Your task to perform on an android device: turn off improve location accuracy Image 0: 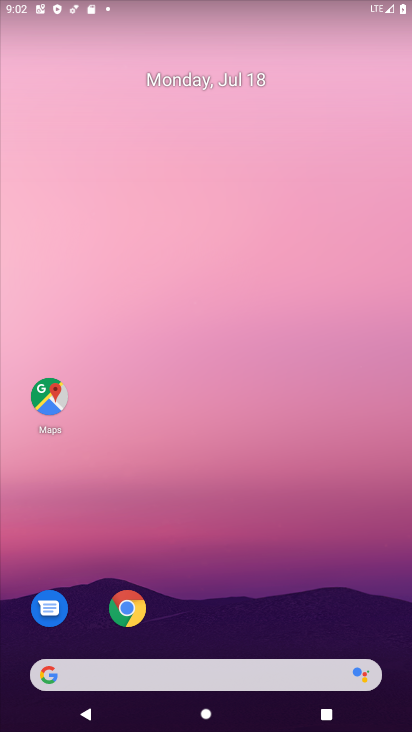
Step 0: drag from (28, 666) to (330, 46)
Your task to perform on an android device: turn off improve location accuracy Image 1: 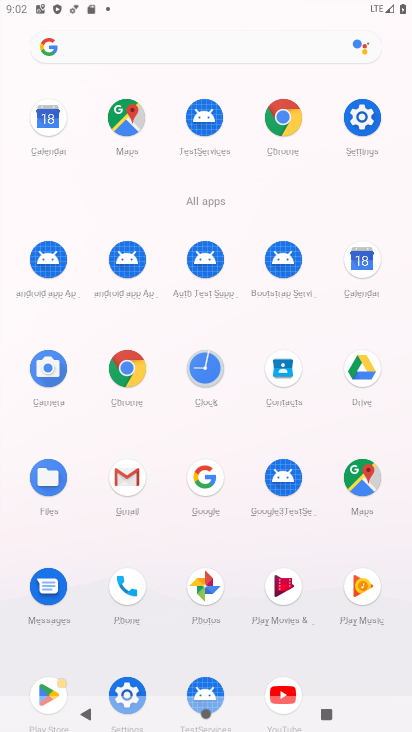
Step 1: click (132, 694)
Your task to perform on an android device: turn off improve location accuracy Image 2: 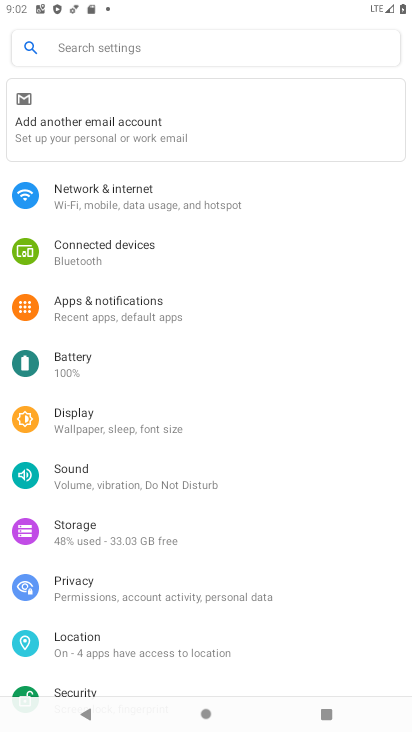
Step 2: click (96, 647)
Your task to perform on an android device: turn off improve location accuracy Image 3: 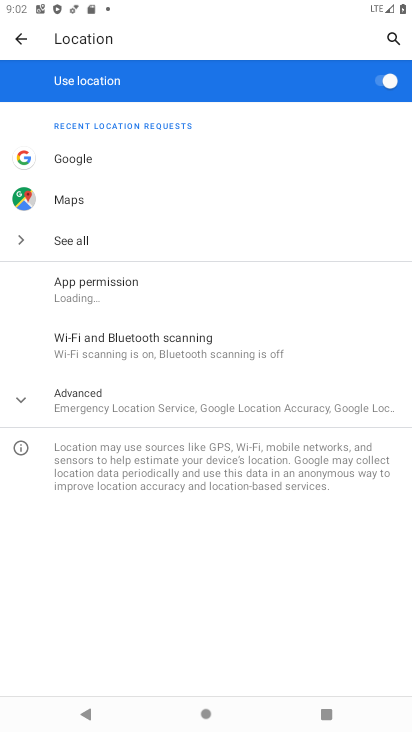
Step 3: click (139, 400)
Your task to perform on an android device: turn off improve location accuracy Image 4: 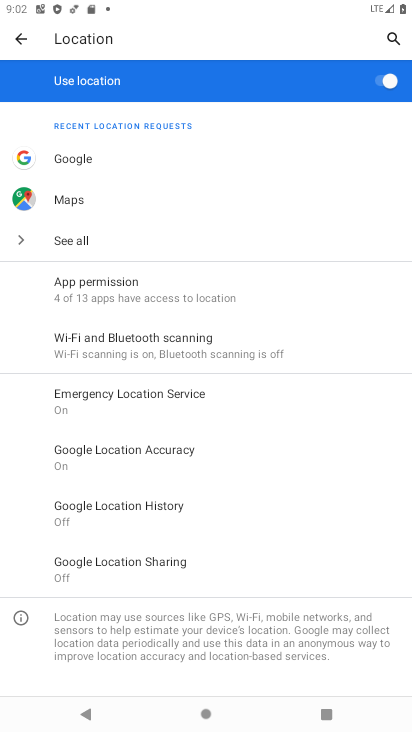
Step 4: click (124, 469)
Your task to perform on an android device: turn off improve location accuracy Image 5: 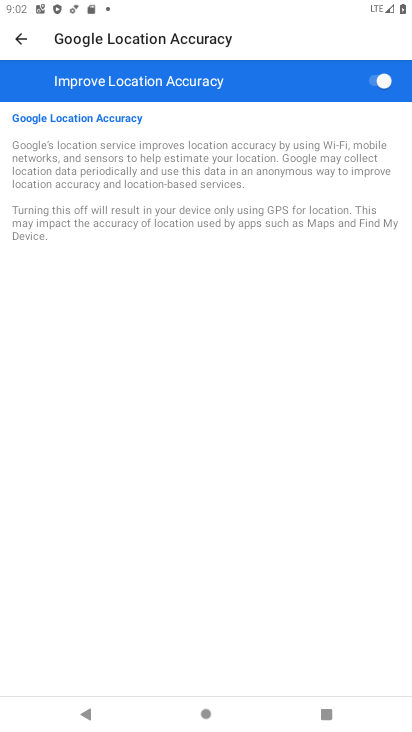
Step 5: click (380, 78)
Your task to perform on an android device: turn off improve location accuracy Image 6: 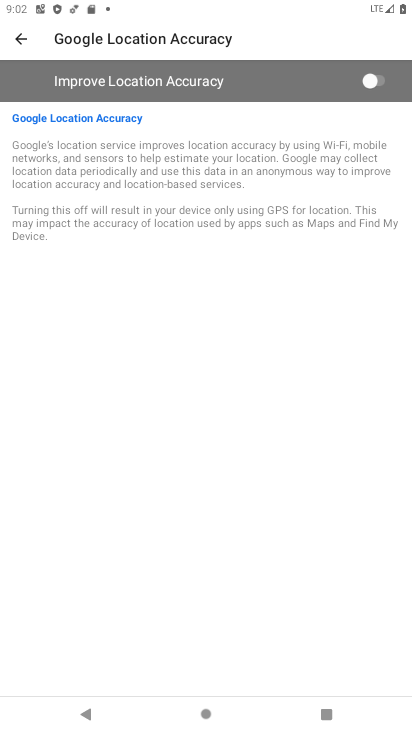
Step 6: task complete